Your task to perform on an android device: Go to ESPN.com Image 0: 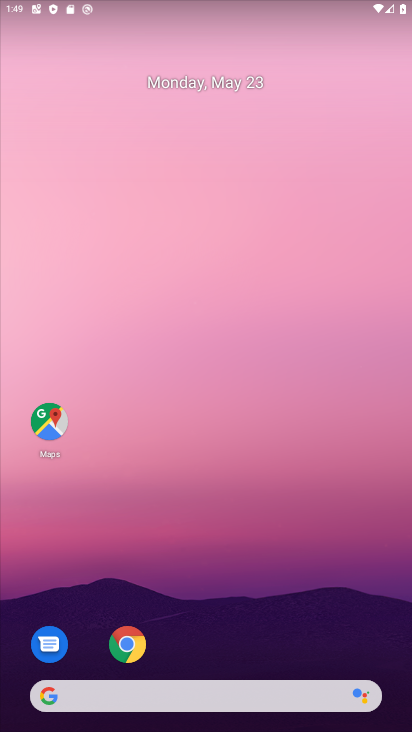
Step 0: drag from (243, 589) to (195, 34)
Your task to perform on an android device: Go to ESPN.com Image 1: 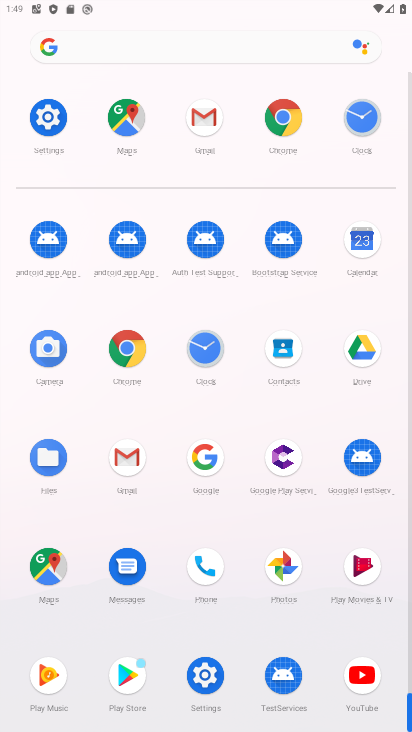
Step 1: click (125, 349)
Your task to perform on an android device: Go to ESPN.com Image 2: 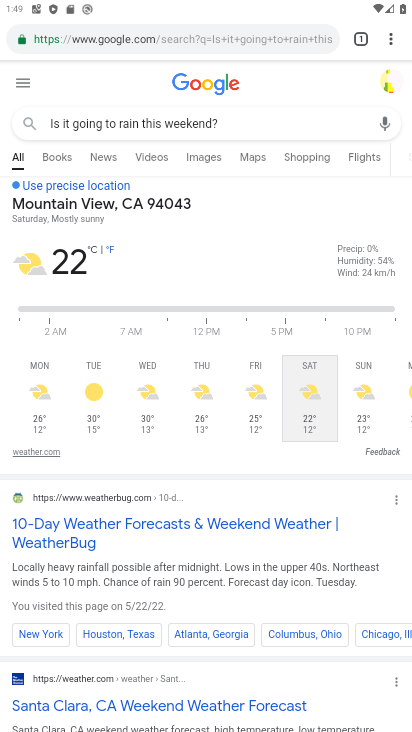
Step 2: click (160, 36)
Your task to perform on an android device: Go to ESPN.com Image 3: 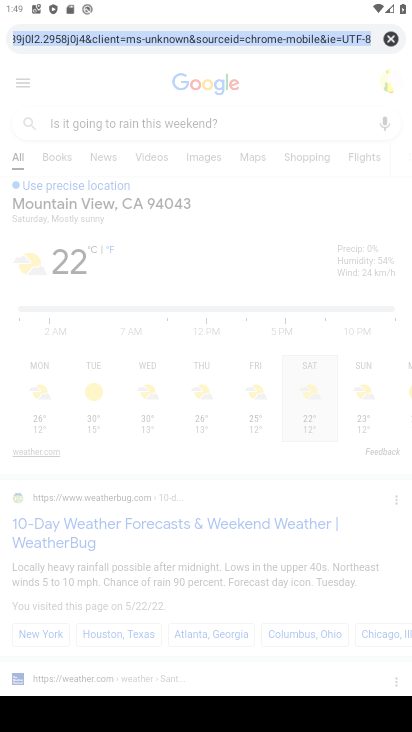
Step 3: click (388, 41)
Your task to perform on an android device: Go to ESPN.com Image 4: 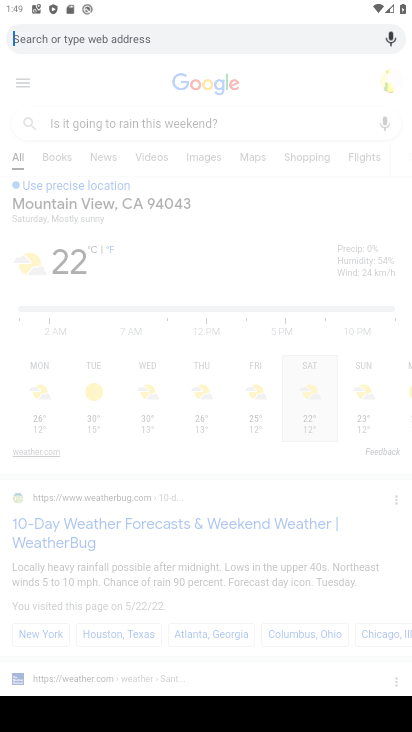
Step 4: type " ESPN.com"
Your task to perform on an android device: Go to ESPN.com Image 5: 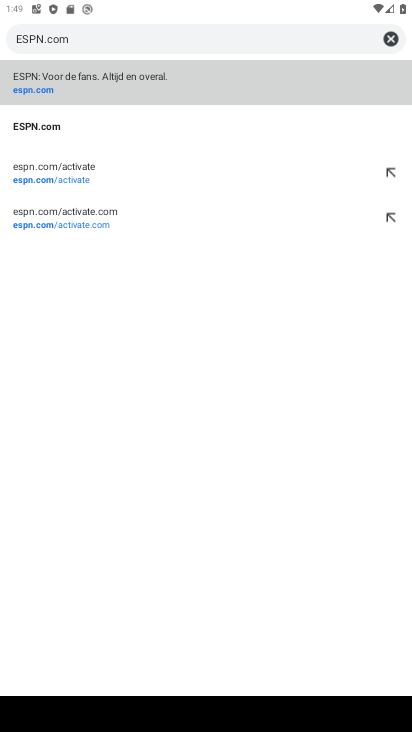
Step 5: click (107, 92)
Your task to perform on an android device: Go to ESPN.com Image 6: 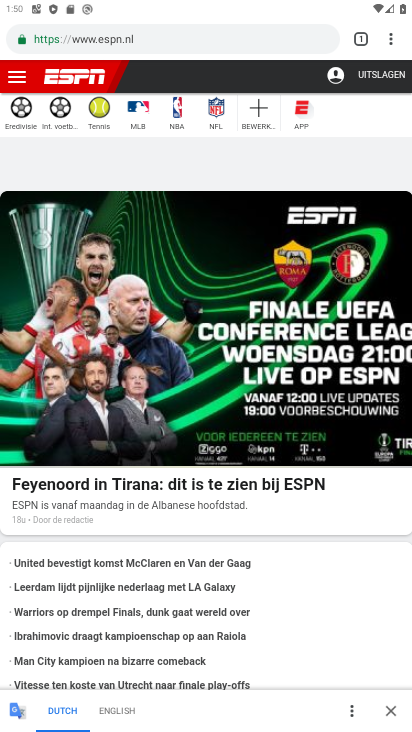
Step 6: task complete